Your task to perform on an android device: toggle data saver in the chrome app Image 0: 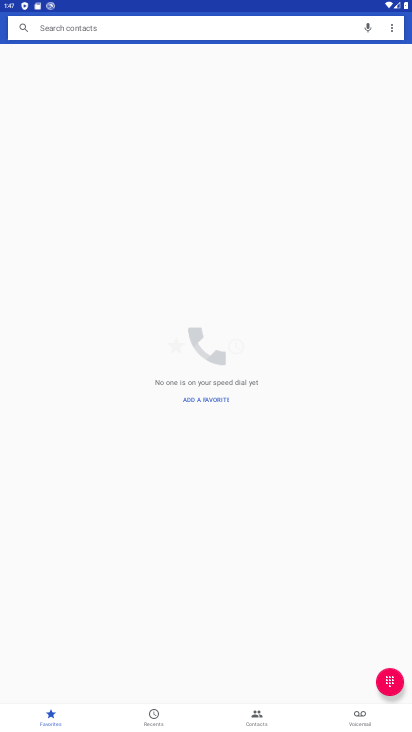
Step 0: press back button
Your task to perform on an android device: toggle data saver in the chrome app Image 1: 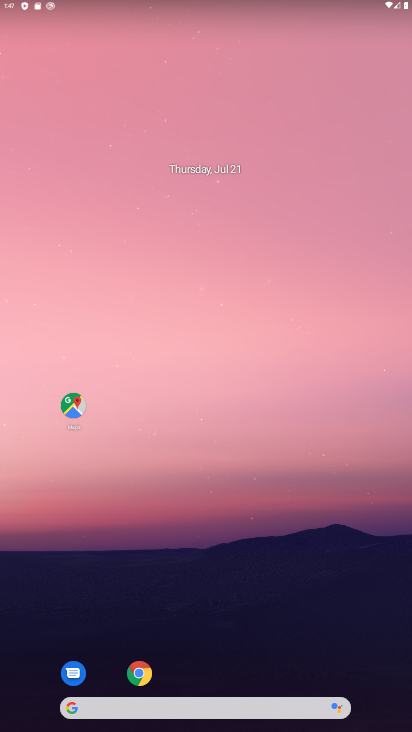
Step 1: click (141, 671)
Your task to perform on an android device: toggle data saver in the chrome app Image 2: 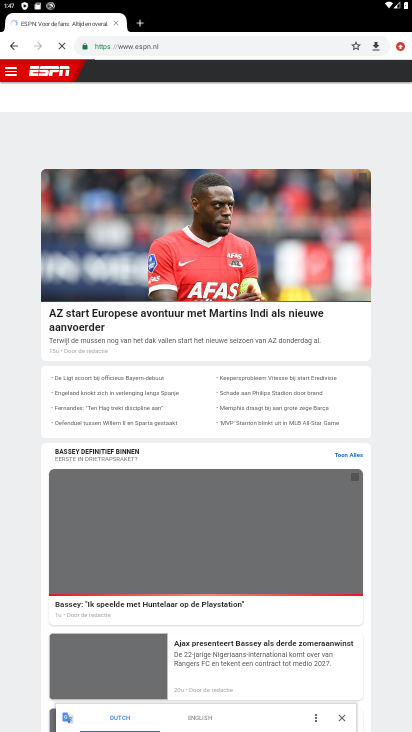
Step 2: click (398, 46)
Your task to perform on an android device: toggle data saver in the chrome app Image 3: 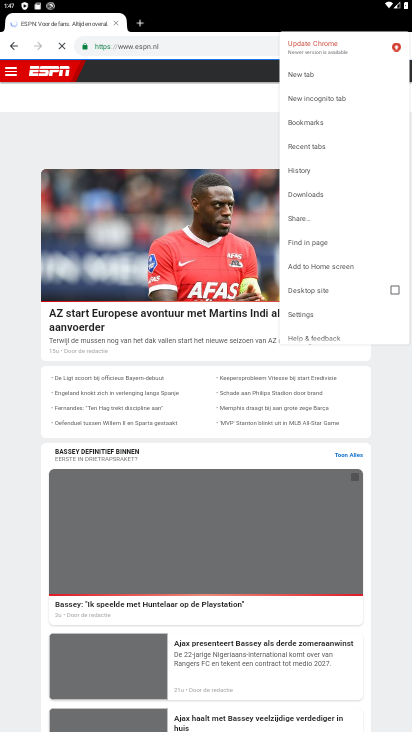
Step 3: click (307, 318)
Your task to perform on an android device: toggle data saver in the chrome app Image 4: 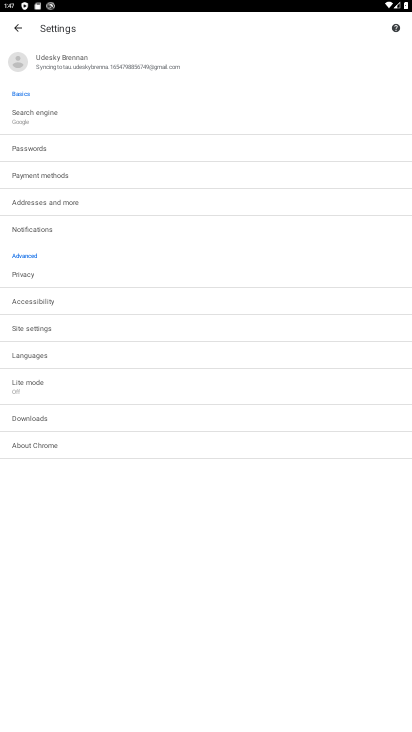
Step 4: click (50, 393)
Your task to perform on an android device: toggle data saver in the chrome app Image 5: 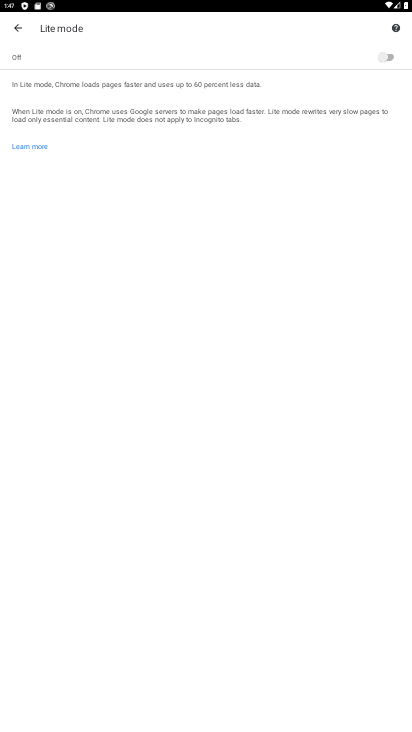
Step 5: click (392, 57)
Your task to perform on an android device: toggle data saver in the chrome app Image 6: 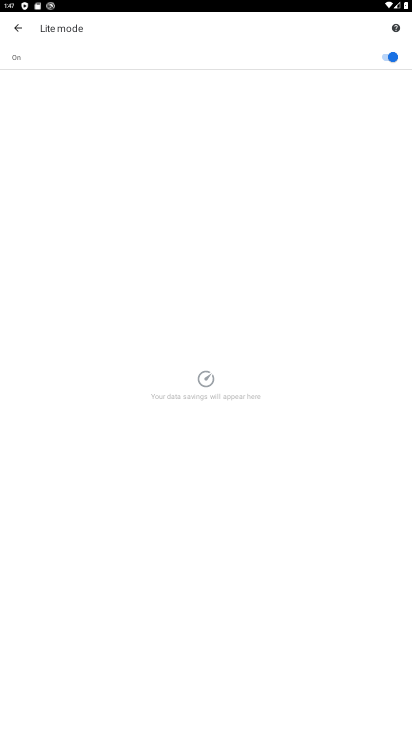
Step 6: task complete